Your task to perform on an android device: Open notification settings Image 0: 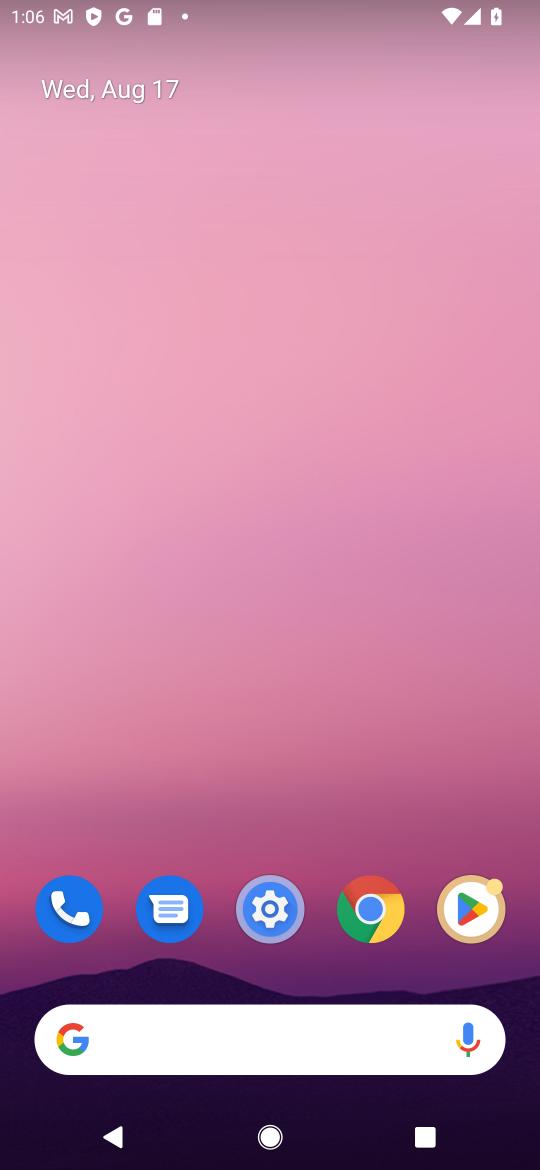
Step 0: drag from (402, 583) to (494, 205)
Your task to perform on an android device: Open notification settings Image 1: 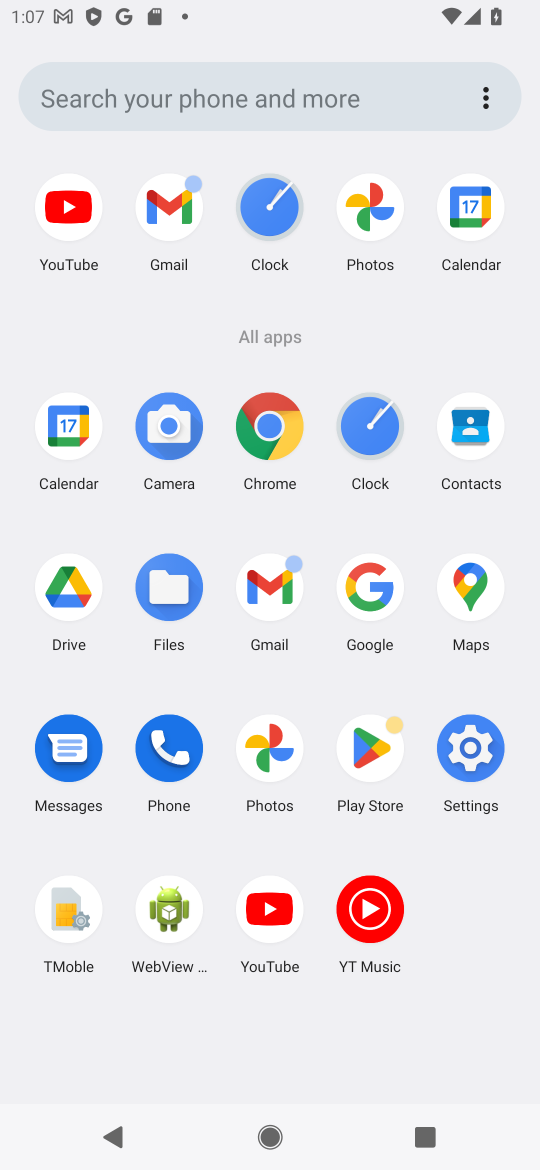
Step 1: click (473, 742)
Your task to perform on an android device: Open notification settings Image 2: 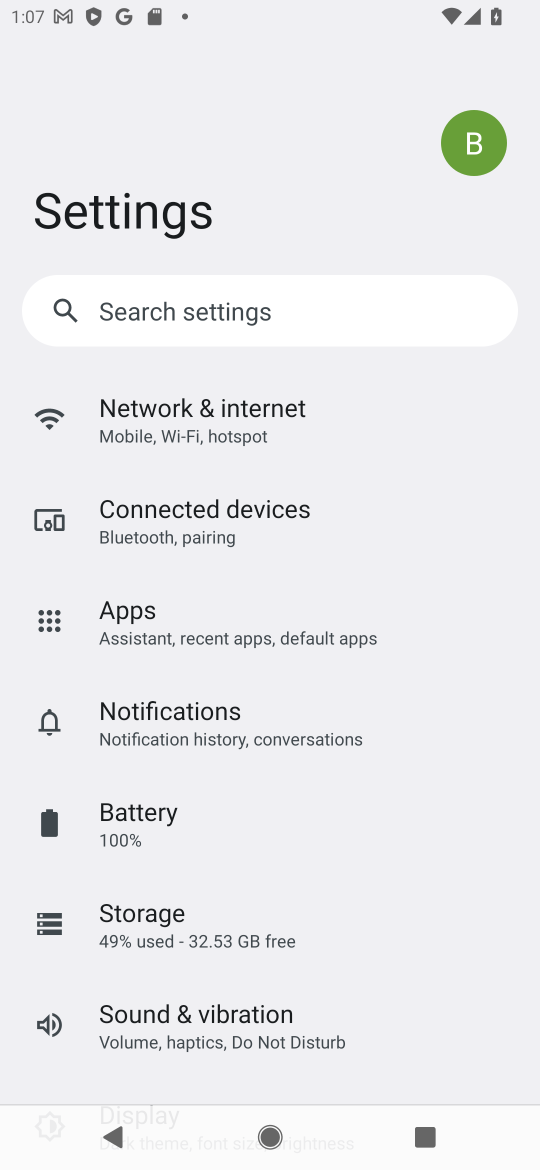
Step 2: task complete